Your task to perform on an android device: delete browsing data in the chrome app Image 0: 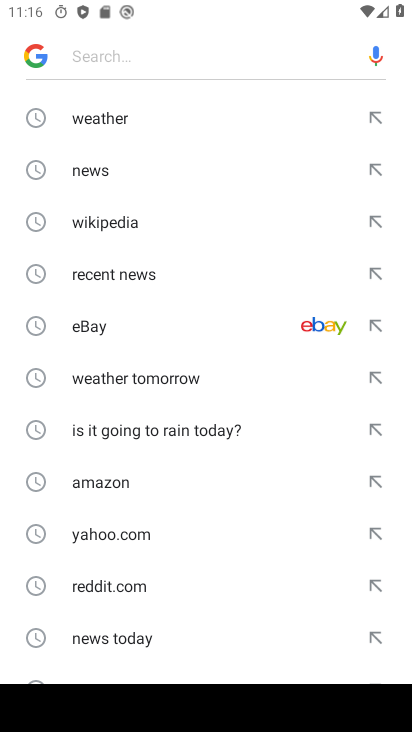
Step 0: press home button
Your task to perform on an android device: delete browsing data in the chrome app Image 1: 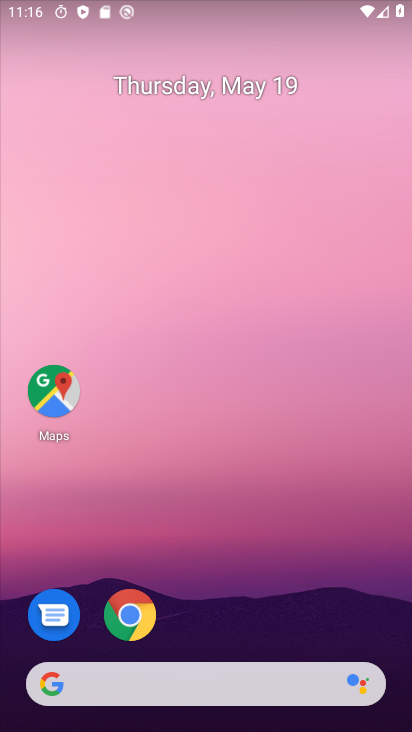
Step 1: click (131, 607)
Your task to perform on an android device: delete browsing data in the chrome app Image 2: 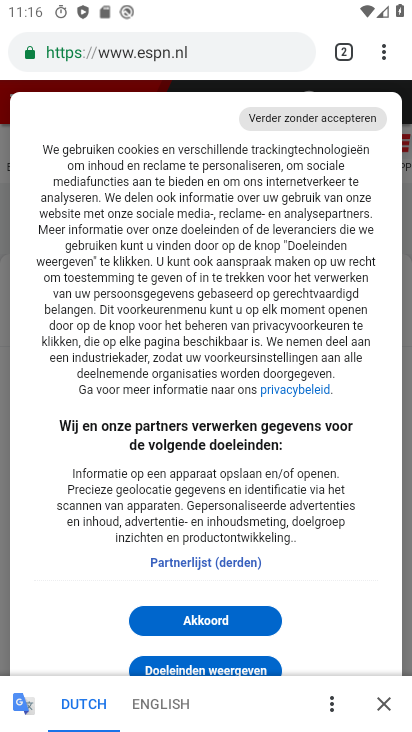
Step 2: click (388, 39)
Your task to perform on an android device: delete browsing data in the chrome app Image 3: 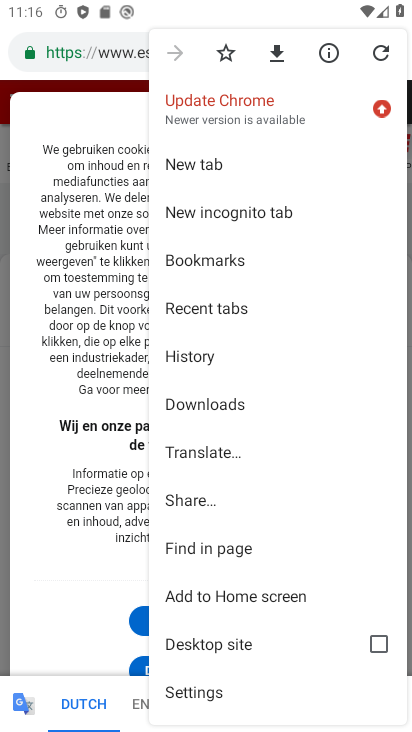
Step 3: click (211, 356)
Your task to perform on an android device: delete browsing data in the chrome app Image 4: 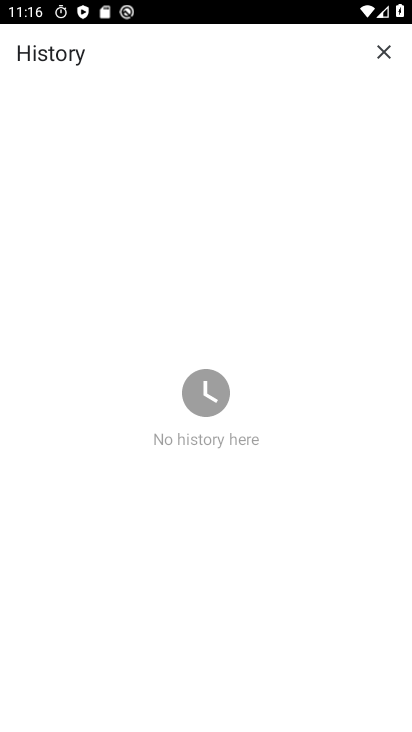
Step 4: task complete